Your task to perform on an android device: Turn off the flashlight Image 0: 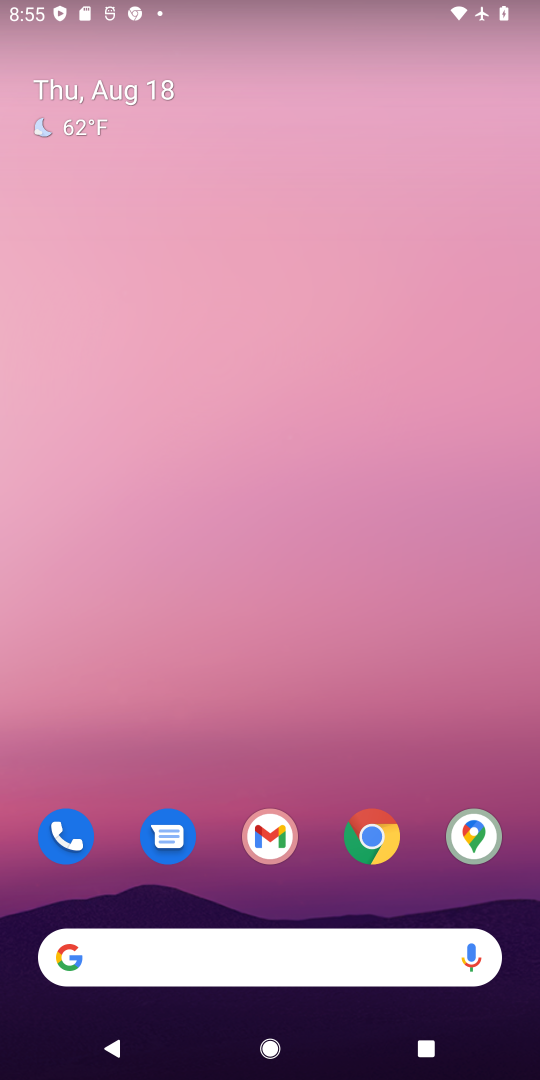
Step 0: drag from (393, 688) to (427, 0)
Your task to perform on an android device: Turn off the flashlight Image 1: 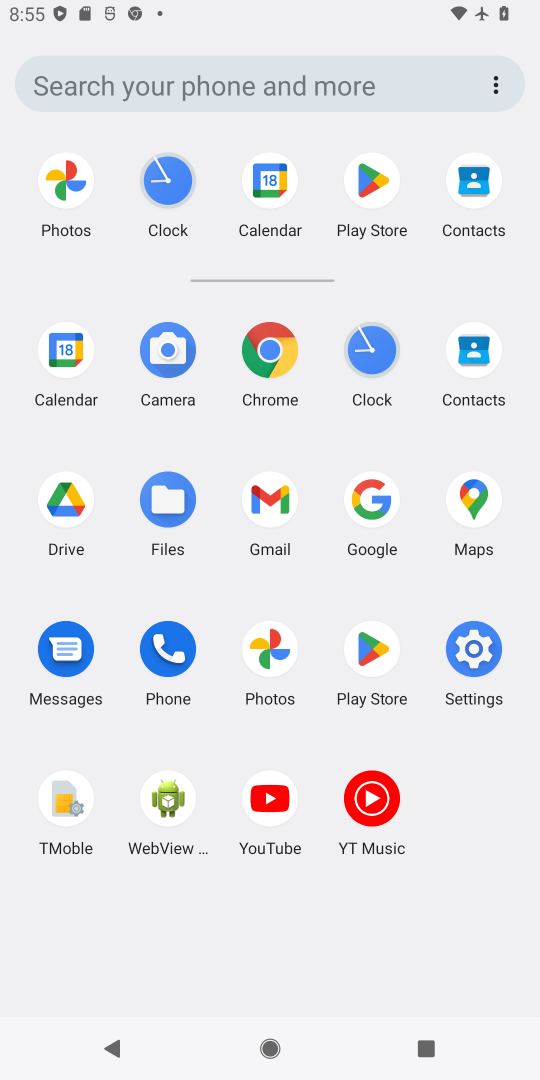
Step 1: click (484, 640)
Your task to perform on an android device: Turn off the flashlight Image 2: 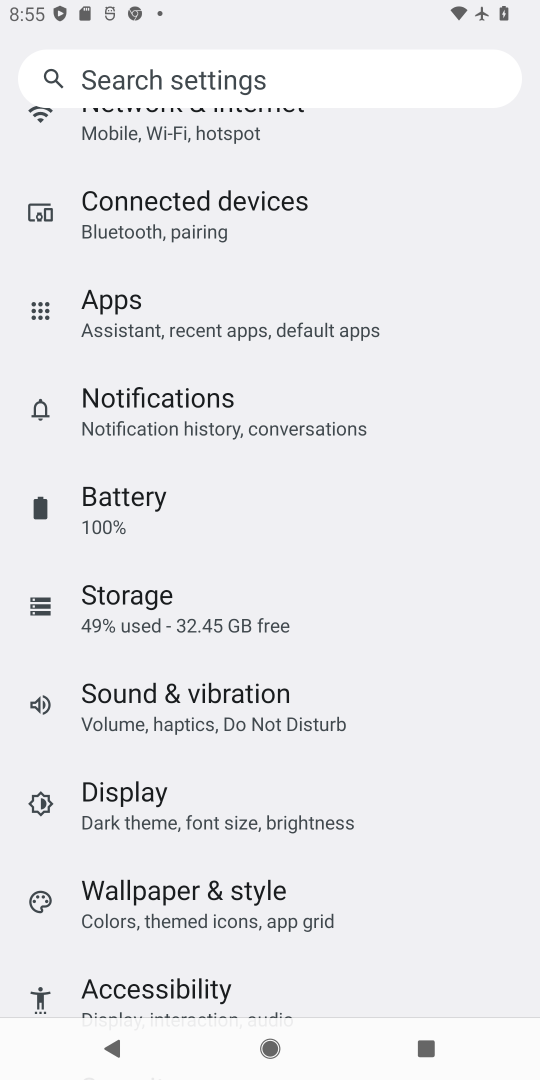
Step 2: drag from (349, 264) to (329, 895)
Your task to perform on an android device: Turn off the flashlight Image 3: 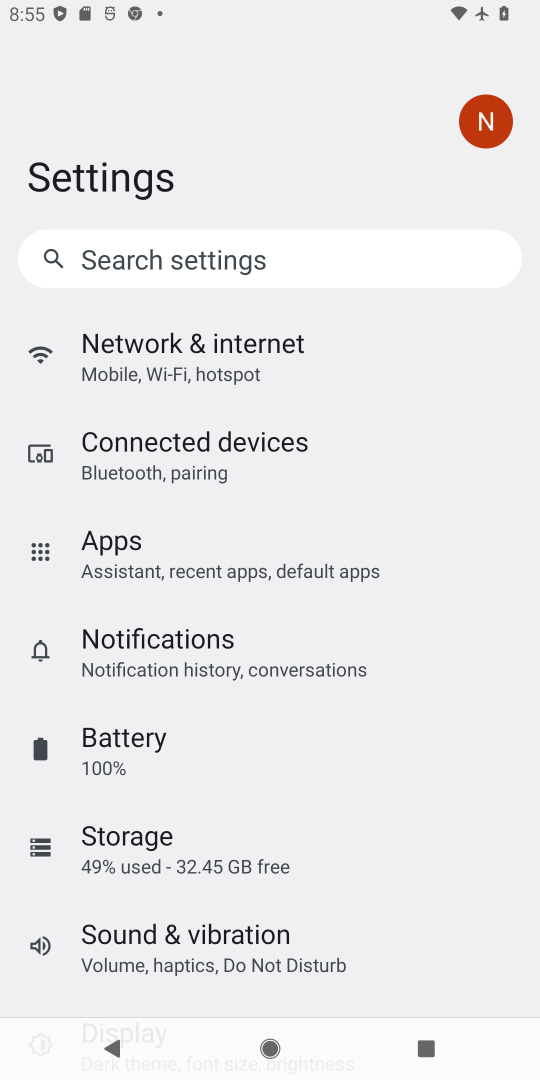
Step 3: drag from (305, 770) to (288, 200)
Your task to perform on an android device: Turn off the flashlight Image 4: 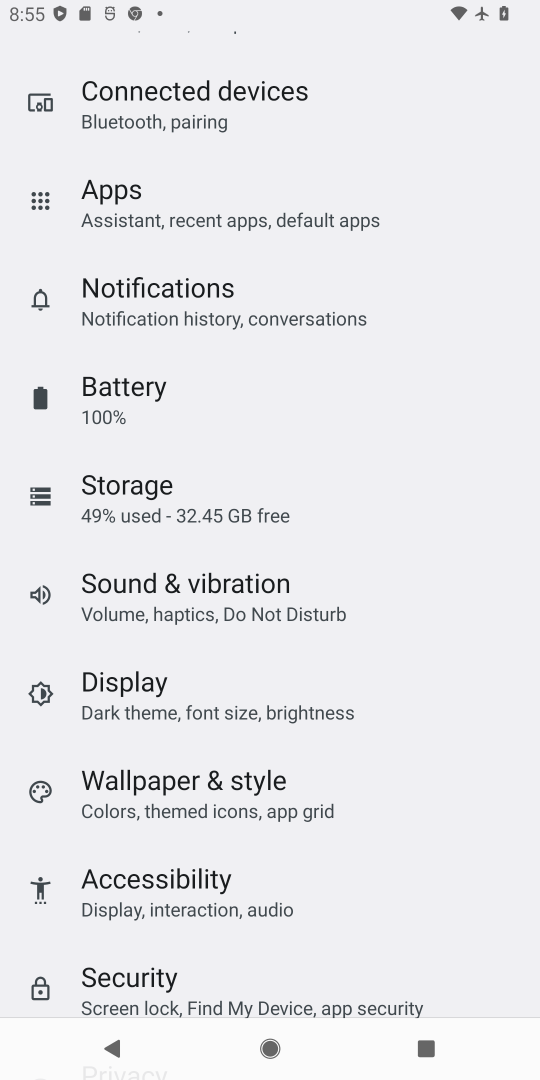
Step 4: click (179, 713)
Your task to perform on an android device: Turn off the flashlight Image 5: 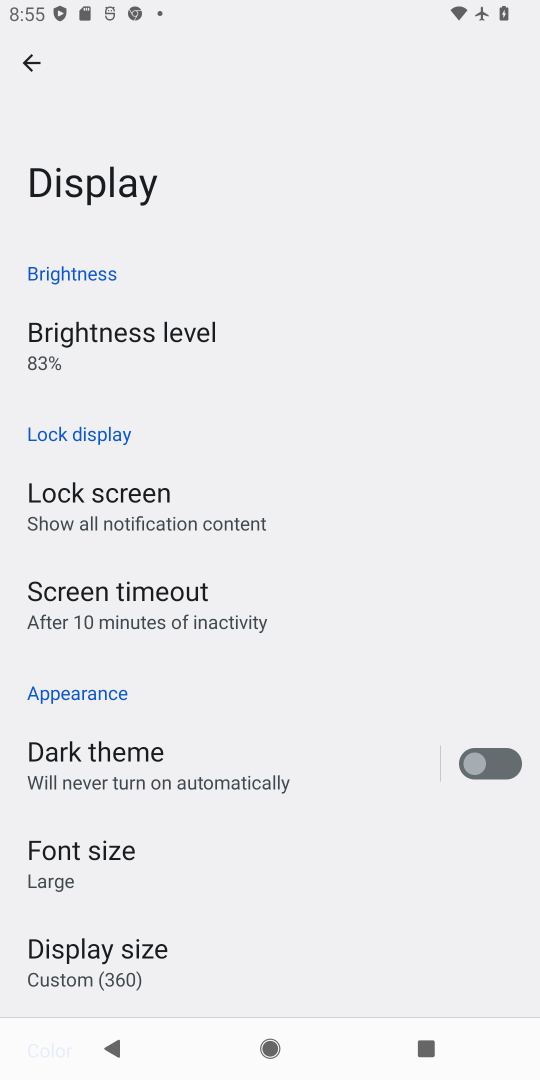
Step 5: click (178, 606)
Your task to perform on an android device: Turn off the flashlight Image 6: 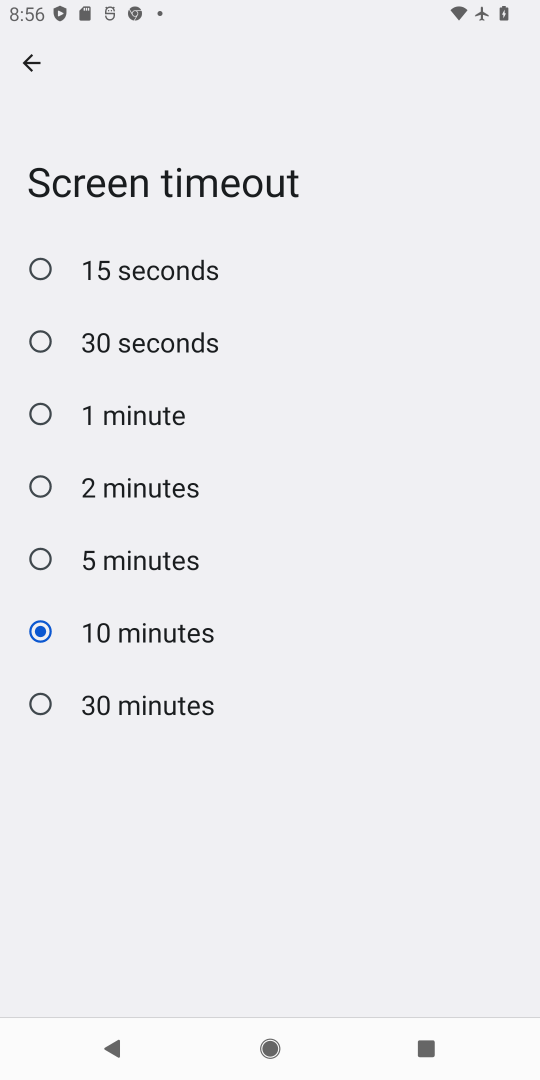
Step 6: task complete